Your task to perform on an android device: Open Reddit.com Image 0: 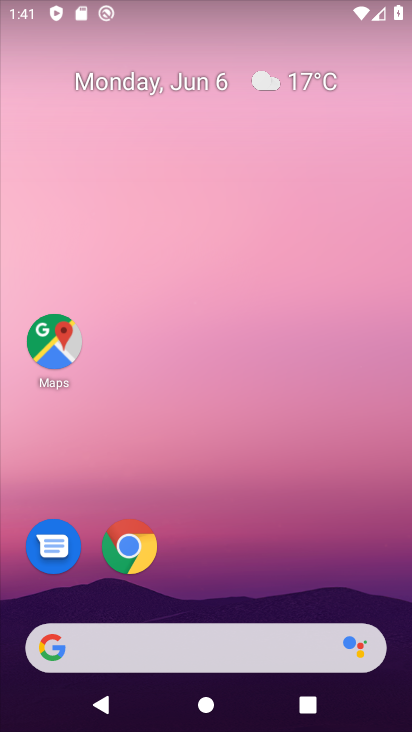
Step 0: drag from (284, 486) to (275, 90)
Your task to perform on an android device: Open Reddit.com Image 1: 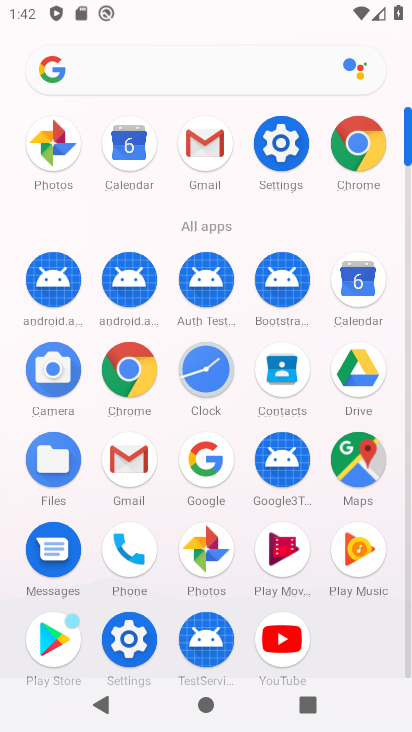
Step 1: click (124, 374)
Your task to perform on an android device: Open Reddit.com Image 2: 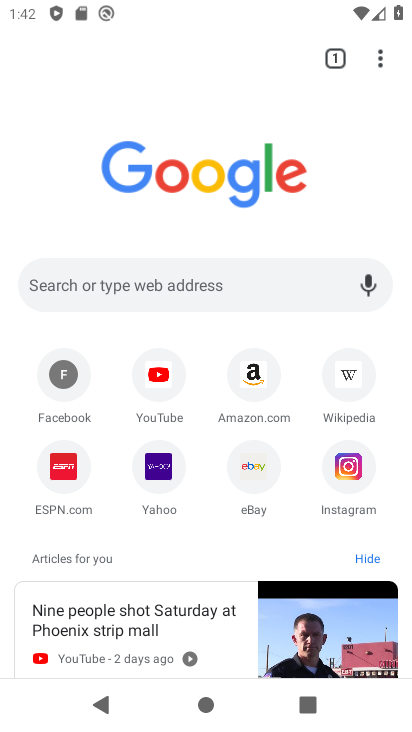
Step 2: click (164, 271)
Your task to perform on an android device: Open Reddit.com Image 3: 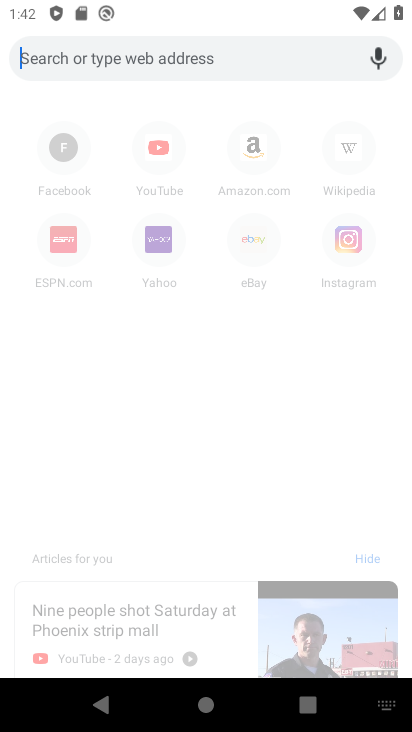
Step 3: type "reddit.com"
Your task to perform on an android device: Open Reddit.com Image 4: 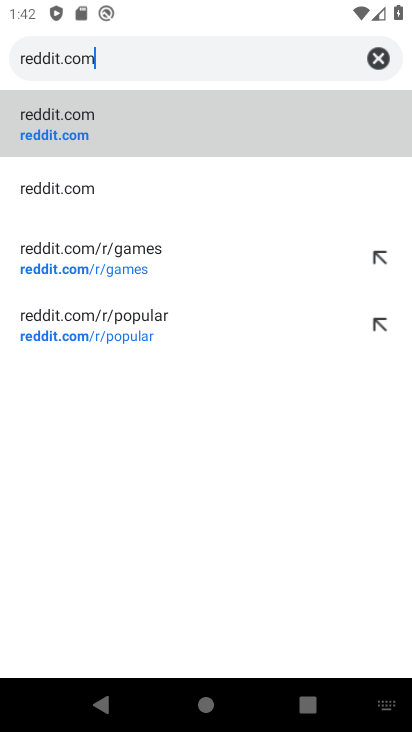
Step 4: click (47, 135)
Your task to perform on an android device: Open Reddit.com Image 5: 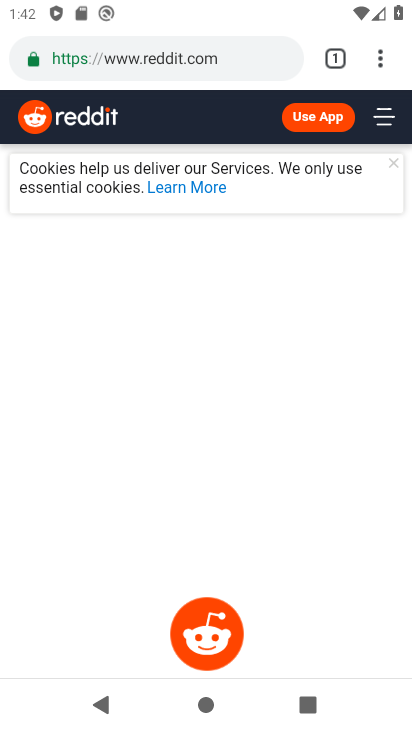
Step 5: task complete